Your task to perform on an android device: open device folders in google photos Image 0: 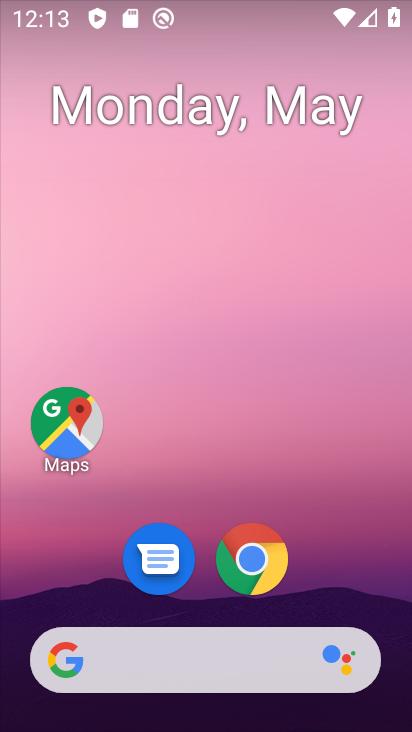
Step 0: drag from (359, 532) to (275, 34)
Your task to perform on an android device: open device folders in google photos Image 1: 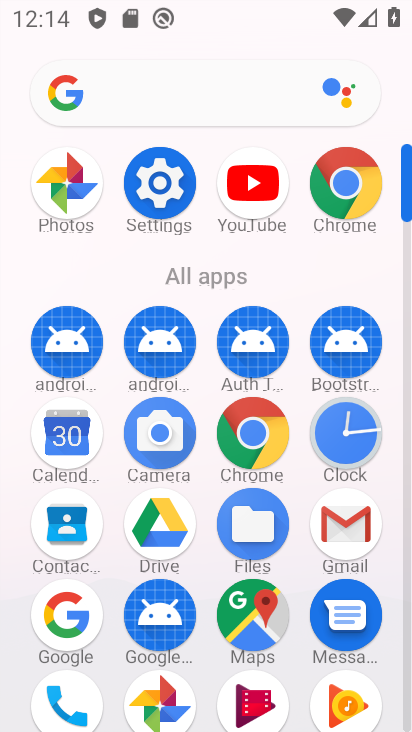
Step 1: drag from (5, 525) to (0, 193)
Your task to perform on an android device: open device folders in google photos Image 2: 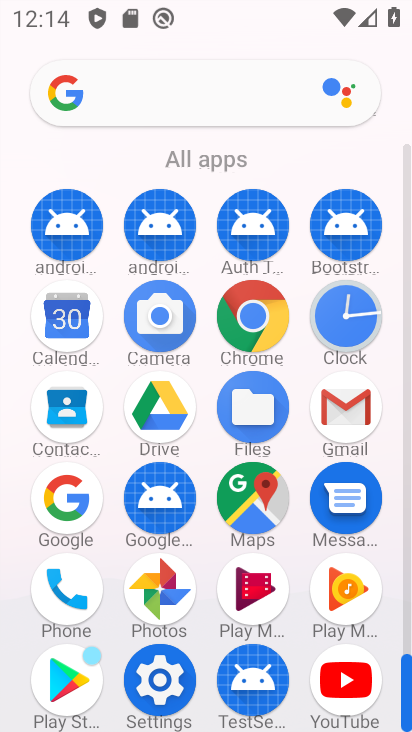
Step 2: drag from (11, 554) to (19, 233)
Your task to perform on an android device: open device folders in google photos Image 3: 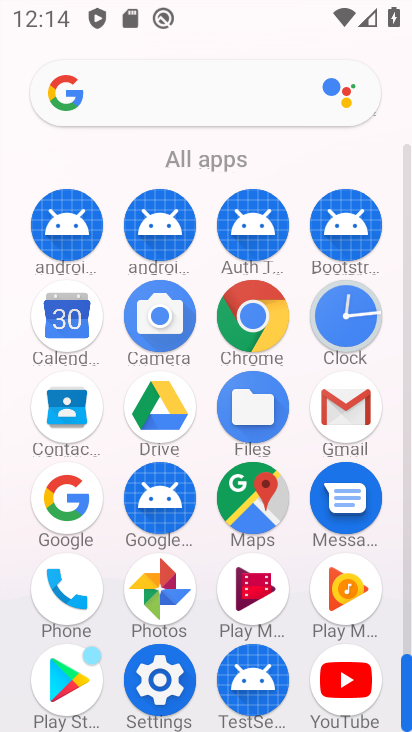
Step 3: click (162, 587)
Your task to perform on an android device: open device folders in google photos Image 4: 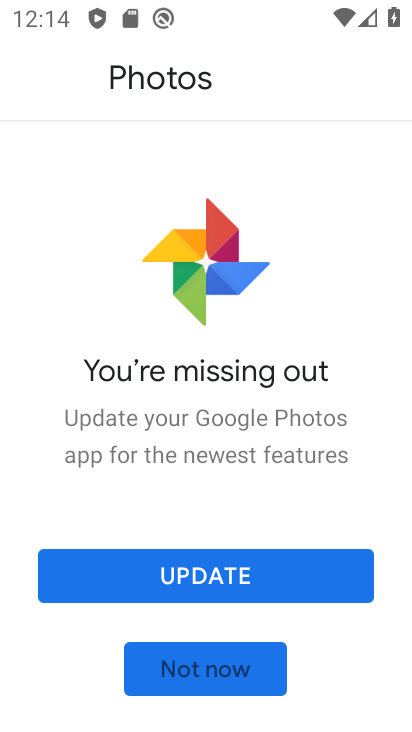
Step 4: click (227, 574)
Your task to perform on an android device: open device folders in google photos Image 5: 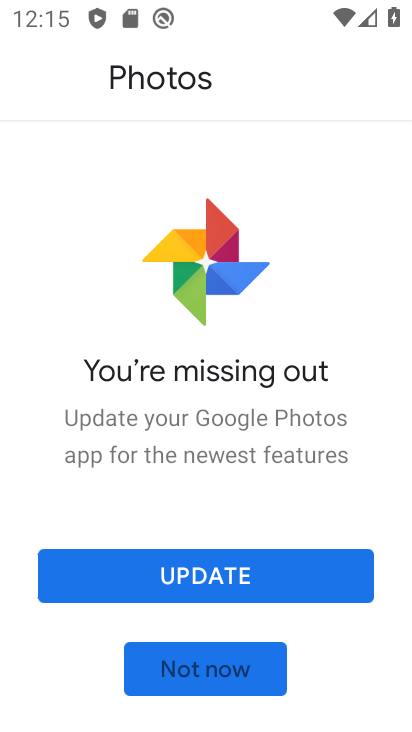
Step 5: click (200, 674)
Your task to perform on an android device: open device folders in google photos Image 6: 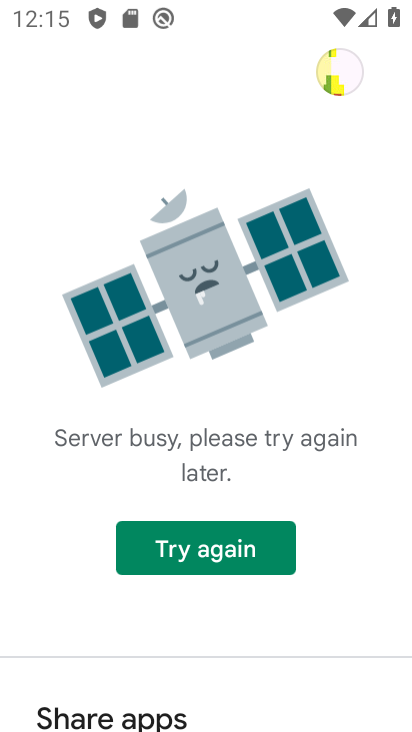
Step 6: press back button
Your task to perform on an android device: open device folders in google photos Image 7: 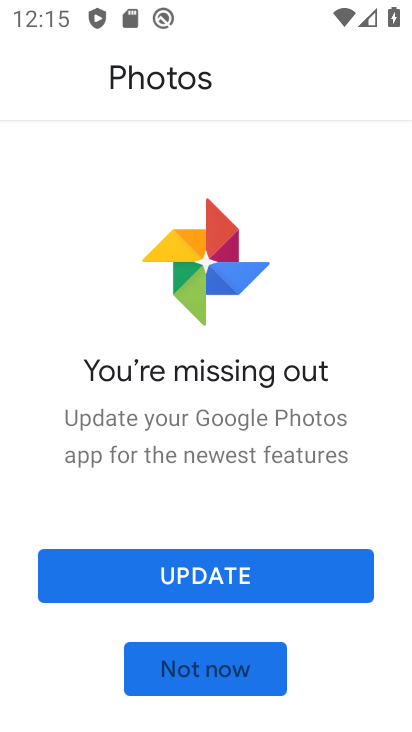
Step 7: click (169, 659)
Your task to perform on an android device: open device folders in google photos Image 8: 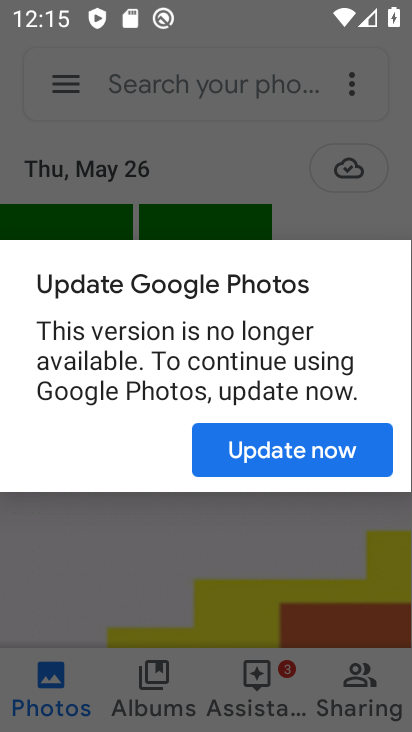
Step 8: click (281, 432)
Your task to perform on an android device: open device folders in google photos Image 9: 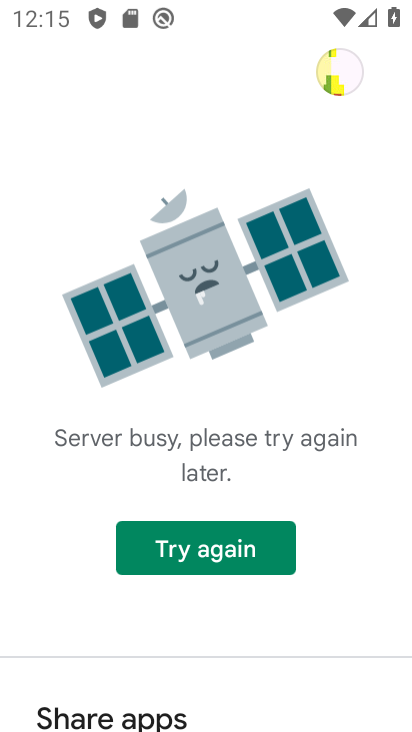
Step 9: task complete